Your task to perform on an android device: check battery use Image 0: 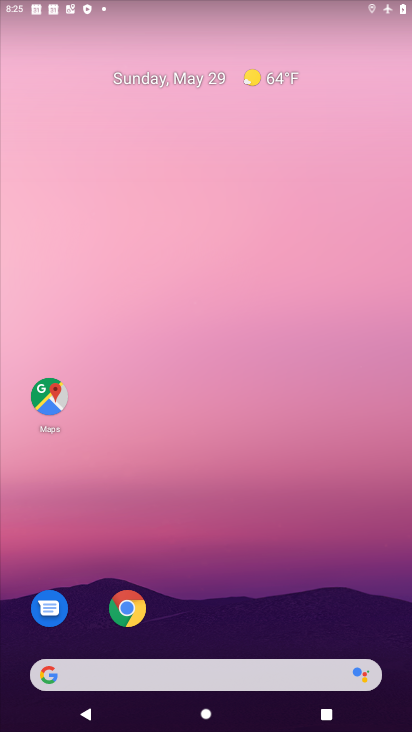
Step 0: drag from (255, 532) to (244, 144)
Your task to perform on an android device: check battery use Image 1: 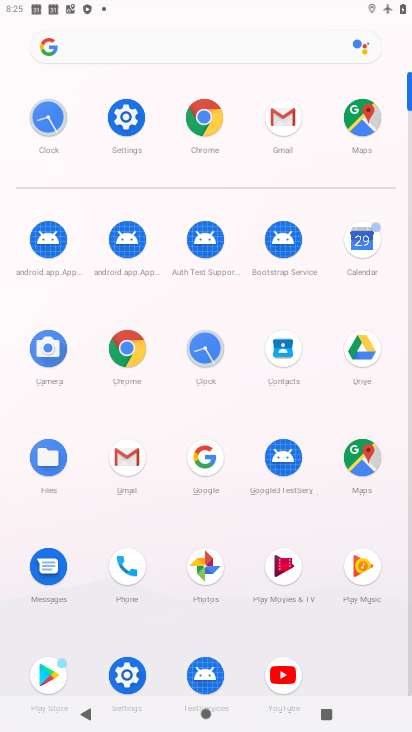
Step 1: click (134, 112)
Your task to perform on an android device: check battery use Image 2: 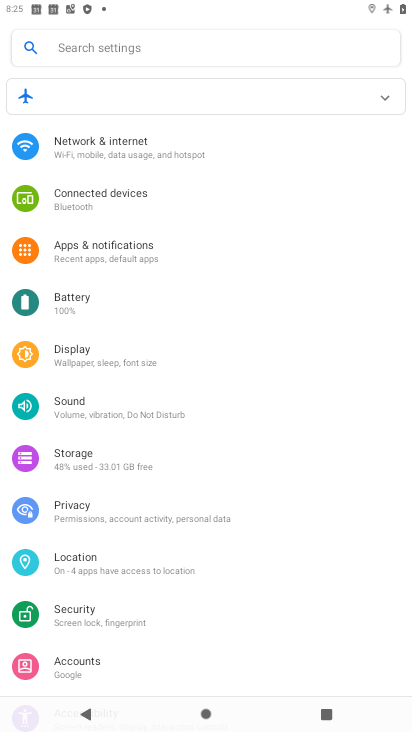
Step 2: click (68, 300)
Your task to perform on an android device: check battery use Image 3: 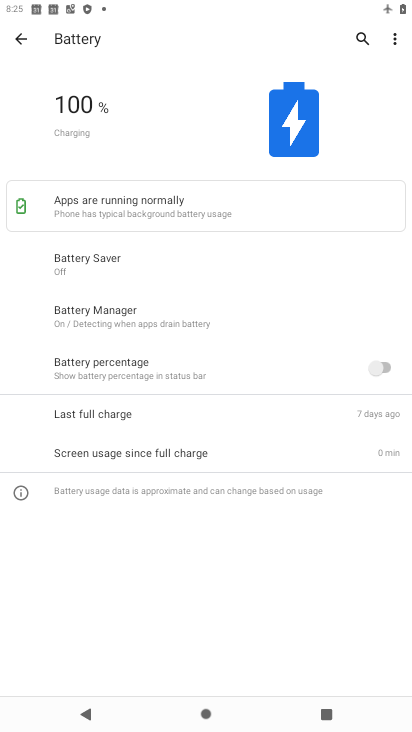
Step 3: task complete